Your task to perform on an android device: What's on my calendar tomorrow? Image 0: 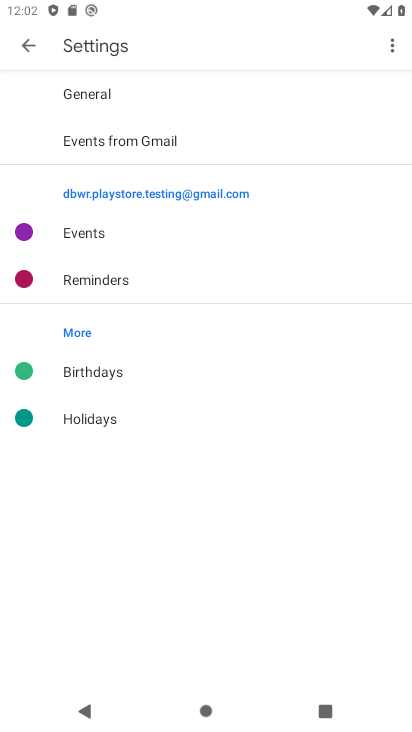
Step 0: press home button
Your task to perform on an android device: What's on my calendar tomorrow? Image 1: 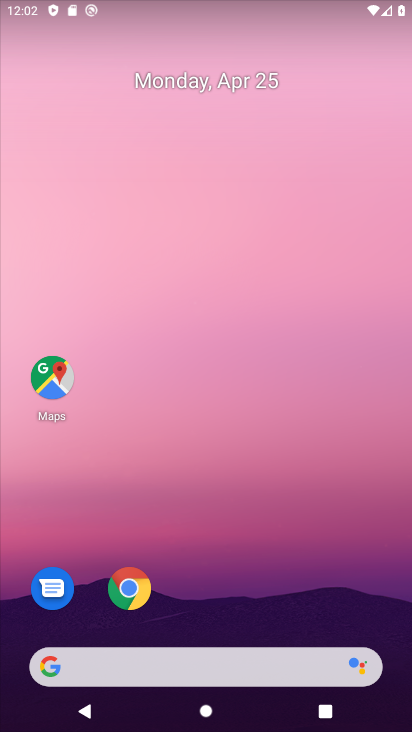
Step 1: drag from (282, 510) to (265, 77)
Your task to perform on an android device: What's on my calendar tomorrow? Image 2: 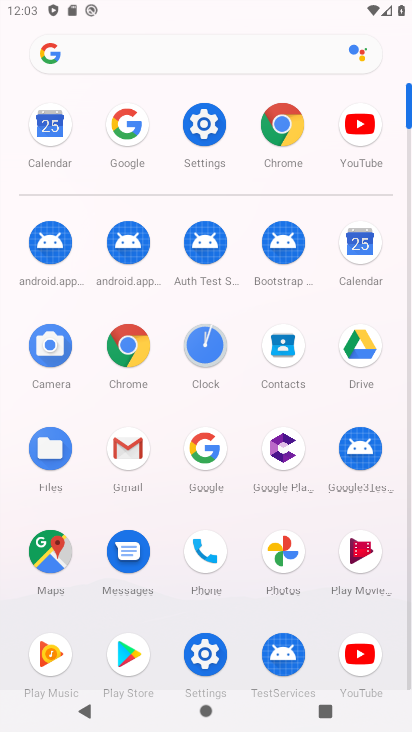
Step 2: click (355, 248)
Your task to perform on an android device: What's on my calendar tomorrow? Image 3: 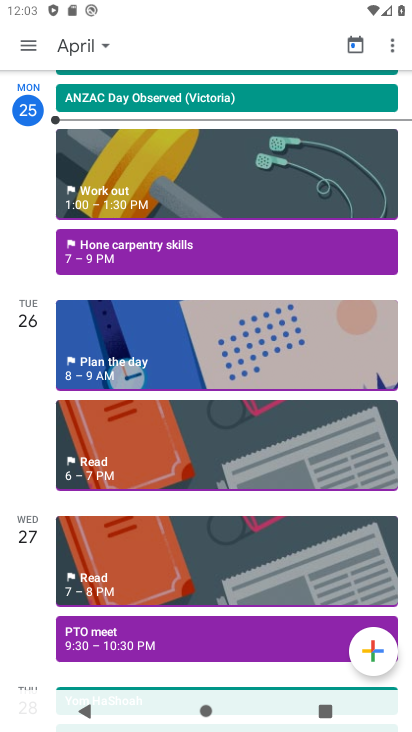
Step 3: task complete